Your task to perform on an android device: What's on my calendar tomorrow? Image 0: 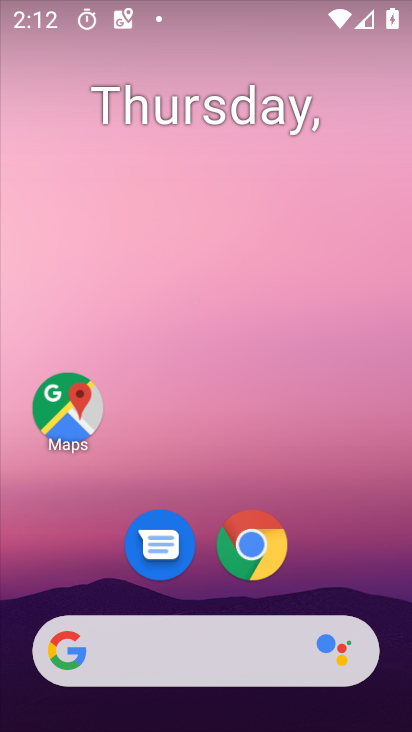
Step 0: drag from (233, 525) to (226, 73)
Your task to perform on an android device: What's on my calendar tomorrow? Image 1: 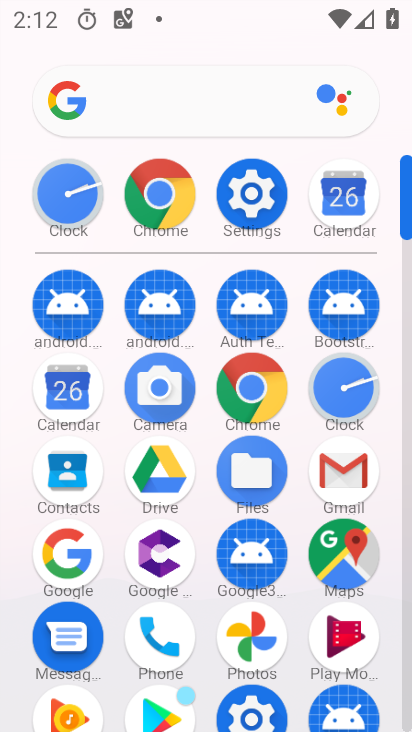
Step 1: click (70, 396)
Your task to perform on an android device: What's on my calendar tomorrow? Image 2: 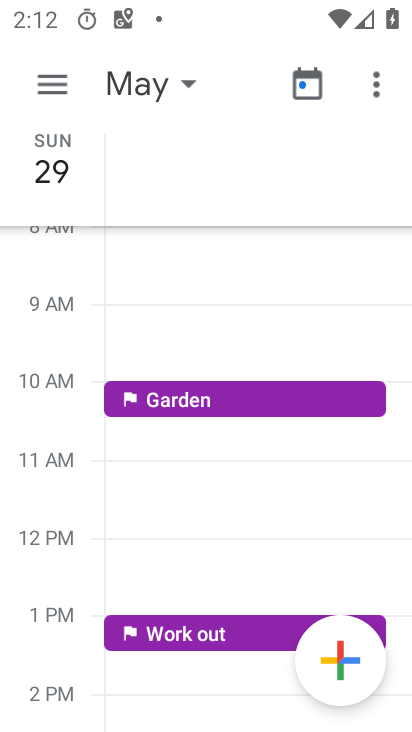
Step 2: click (147, 82)
Your task to perform on an android device: What's on my calendar tomorrow? Image 3: 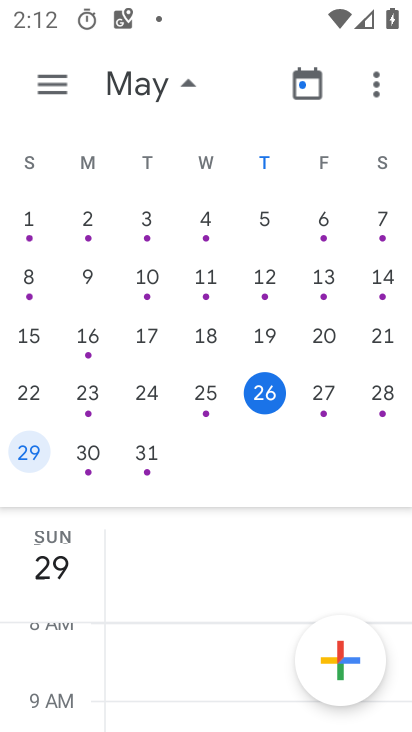
Step 3: click (321, 392)
Your task to perform on an android device: What's on my calendar tomorrow? Image 4: 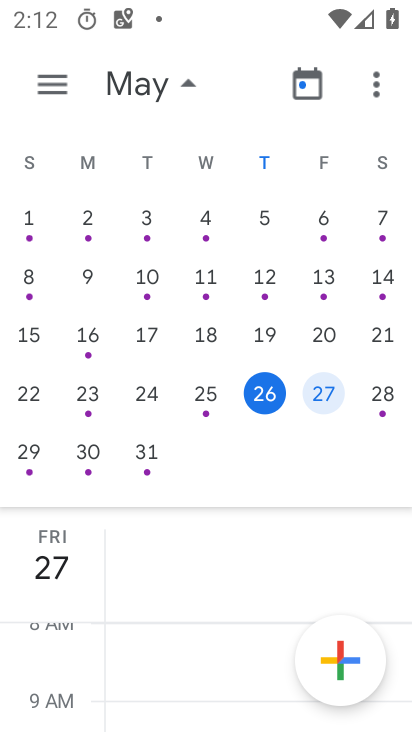
Step 4: click (321, 392)
Your task to perform on an android device: What's on my calendar tomorrow? Image 5: 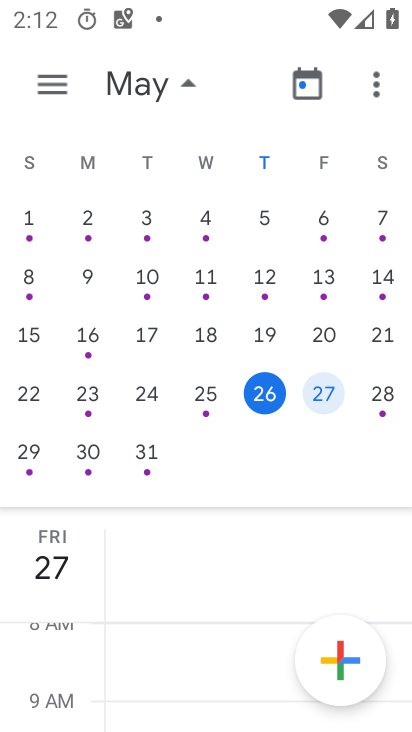
Step 5: click (319, 392)
Your task to perform on an android device: What's on my calendar tomorrow? Image 6: 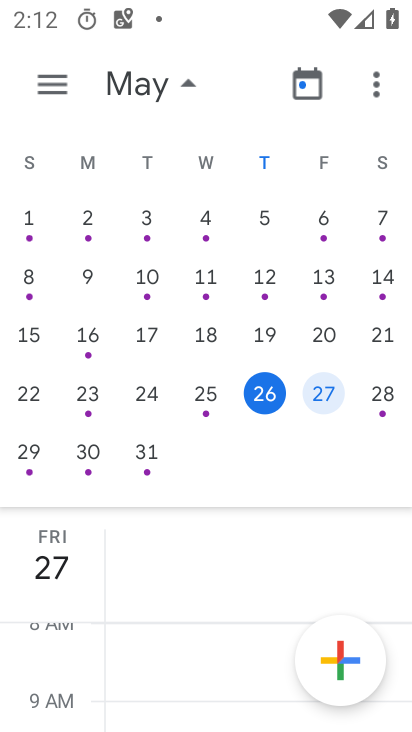
Step 6: click (58, 545)
Your task to perform on an android device: What's on my calendar tomorrow? Image 7: 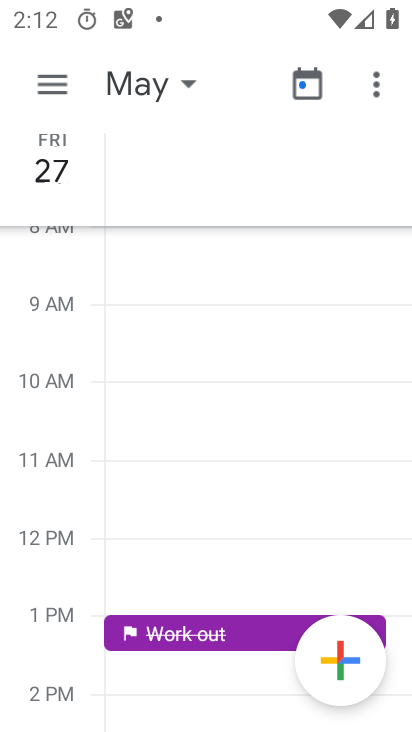
Step 7: task complete